Your task to perform on an android device: open a bookmark in the chrome app Image 0: 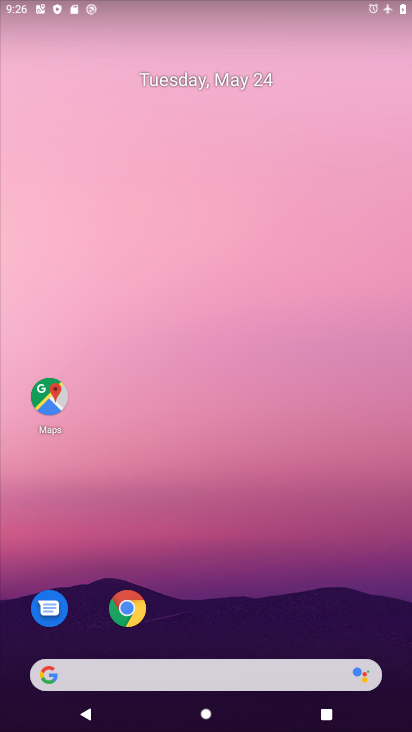
Step 0: click (139, 615)
Your task to perform on an android device: open a bookmark in the chrome app Image 1: 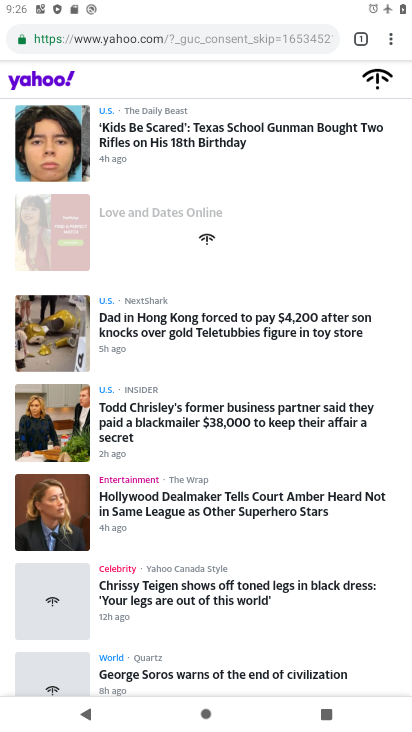
Step 1: click (385, 34)
Your task to perform on an android device: open a bookmark in the chrome app Image 2: 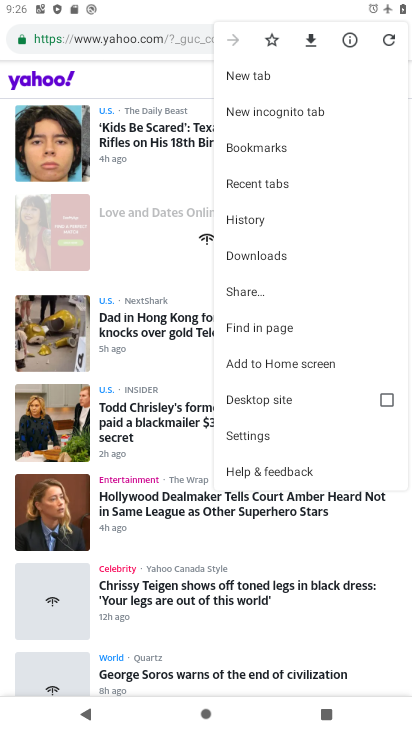
Step 2: click (288, 157)
Your task to perform on an android device: open a bookmark in the chrome app Image 3: 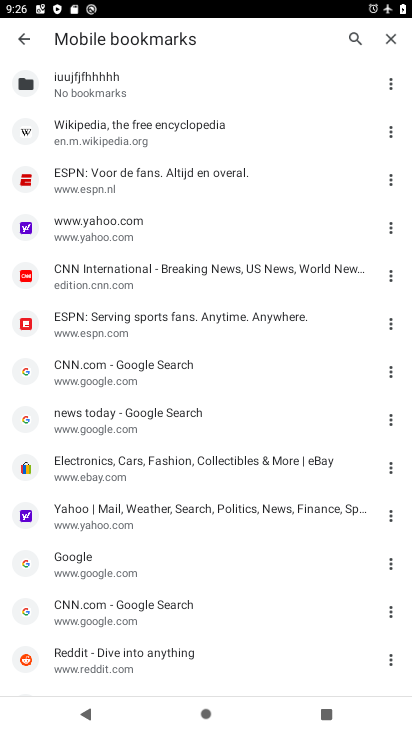
Step 3: click (140, 274)
Your task to perform on an android device: open a bookmark in the chrome app Image 4: 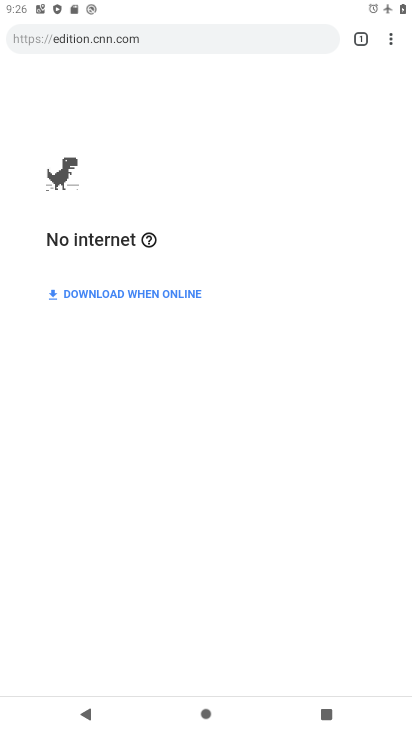
Step 4: task complete